Your task to perform on an android device: toggle notifications settings in the gmail app Image 0: 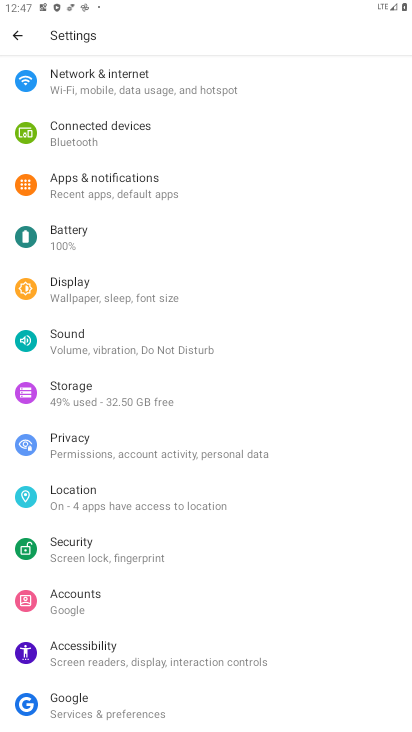
Step 0: press home button
Your task to perform on an android device: toggle notifications settings in the gmail app Image 1: 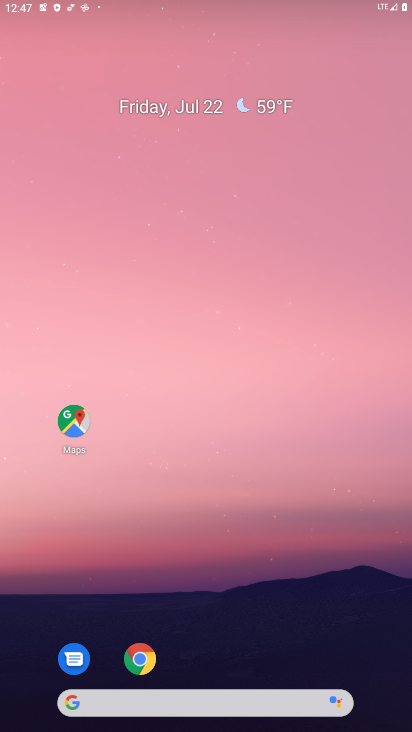
Step 1: drag from (299, 591) to (306, 110)
Your task to perform on an android device: toggle notifications settings in the gmail app Image 2: 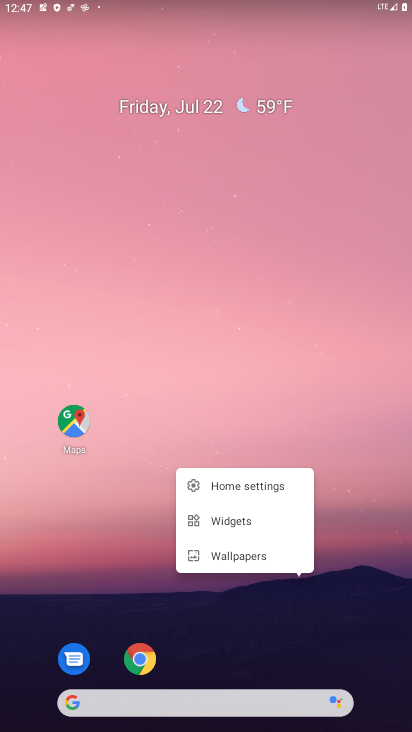
Step 2: click (250, 639)
Your task to perform on an android device: toggle notifications settings in the gmail app Image 3: 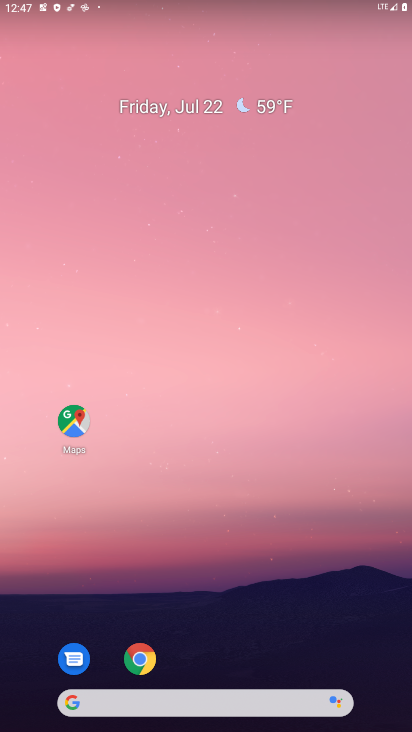
Step 3: drag from (270, 624) to (276, 82)
Your task to perform on an android device: toggle notifications settings in the gmail app Image 4: 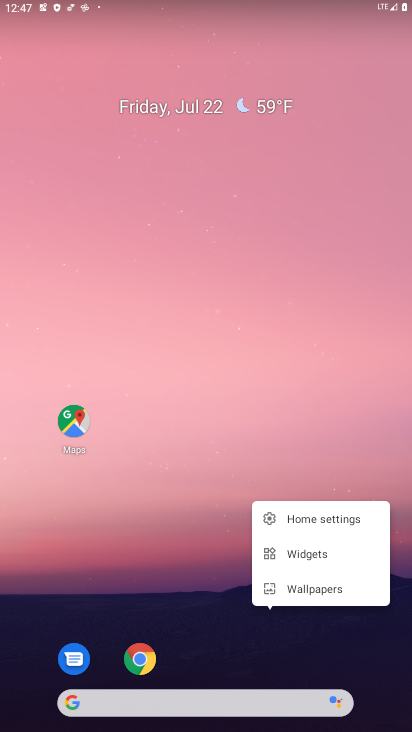
Step 4: click (225, 583)
Your task to perform on an android device: toggle notifications settings in the gmail app Image 5: 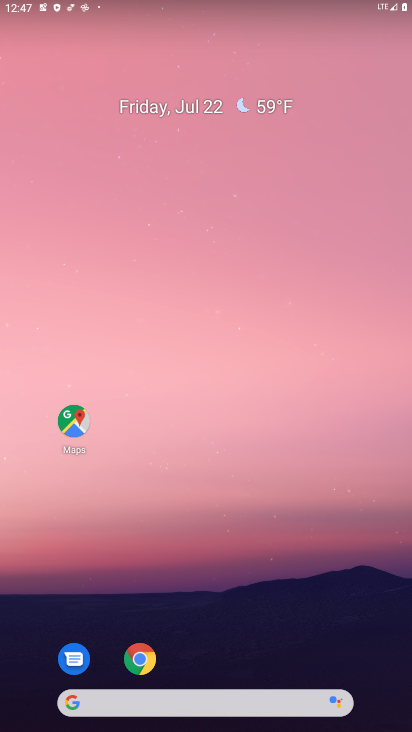
Step 5: drag from (264, 645) to (276, 64)
Your task to perform on an android device: toggle notifications settings in the gmail app Image 6: 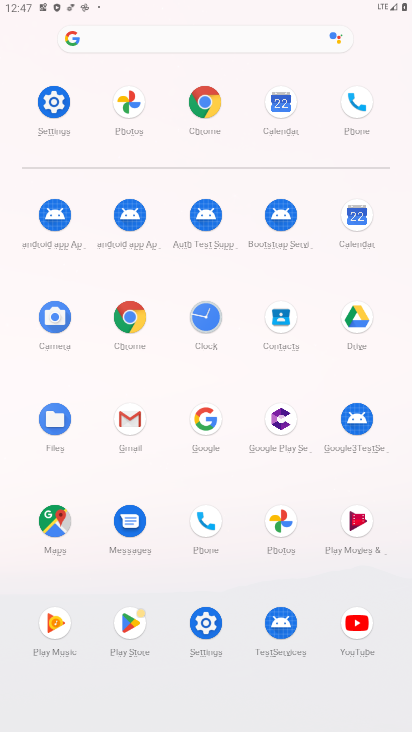
Step 6: click (140, 422)
Your task to perform on an android device: toggle notifications settings in the gmail app Image 7: 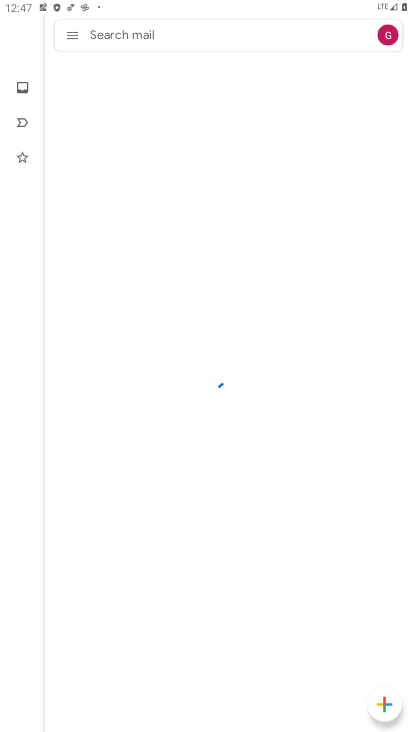
Step 7: click (80, 35)
Your task to perform on an android device: toggle notifications settings in the gmail app Image 8: 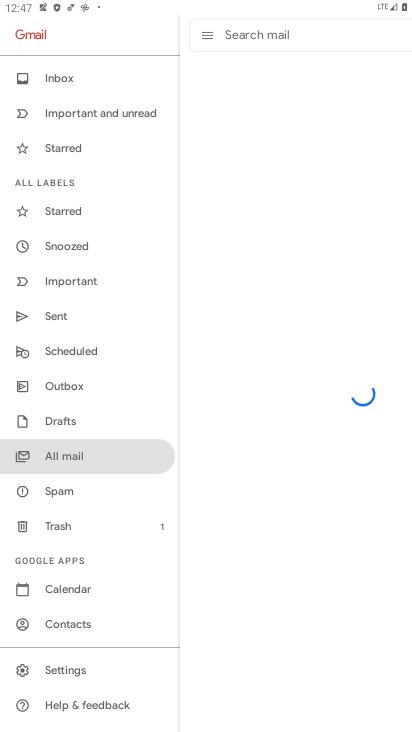
Step 8: click (69, 674)
Your task to perform on an android device: toggle notifications settings in the gmail app Image 9: 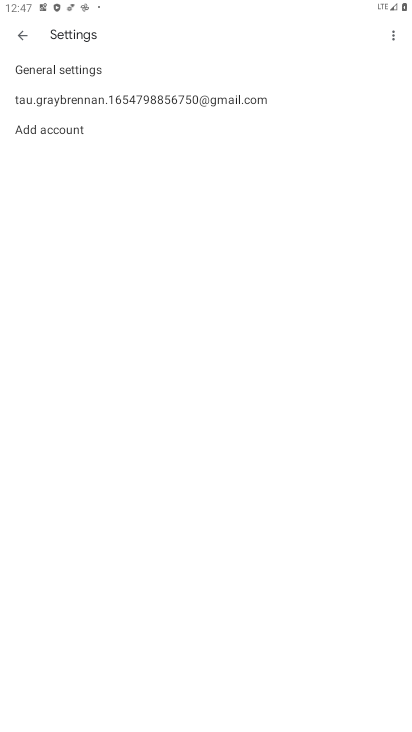
Step 9: click (54, 99)
Your task to perform on an android device: toggle notifications settings in the gmail app Image 10: 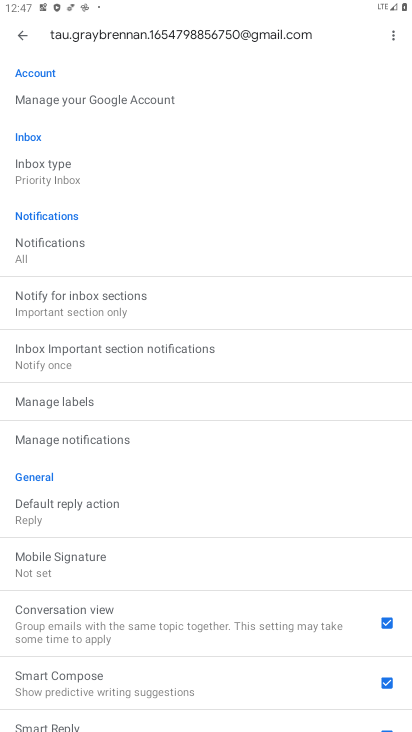
Step 10: click (58, 257)
Your task to perform on an android device: toggle notifications settings in the gmail app Image 11: 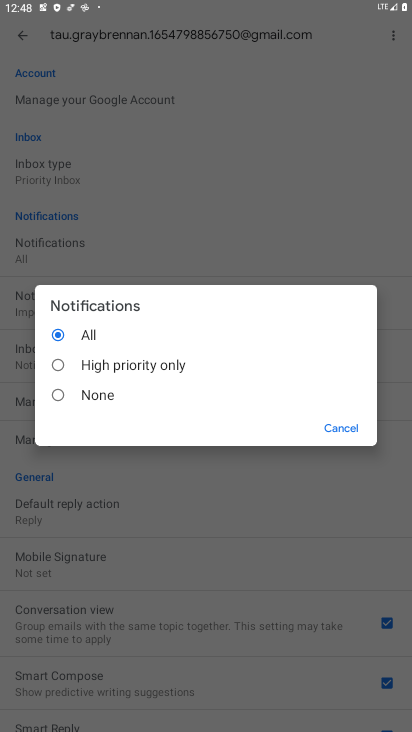
Step 11: click (95, 364)
Your task to perform on an android device: toggle notifications settings in the gmail app Image 12: 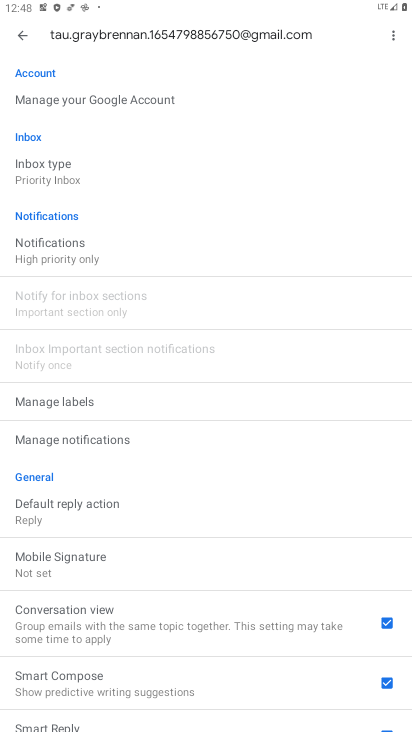
Step 12: task complete